Your task to perform on an android device: Install the eBay app Image 0: 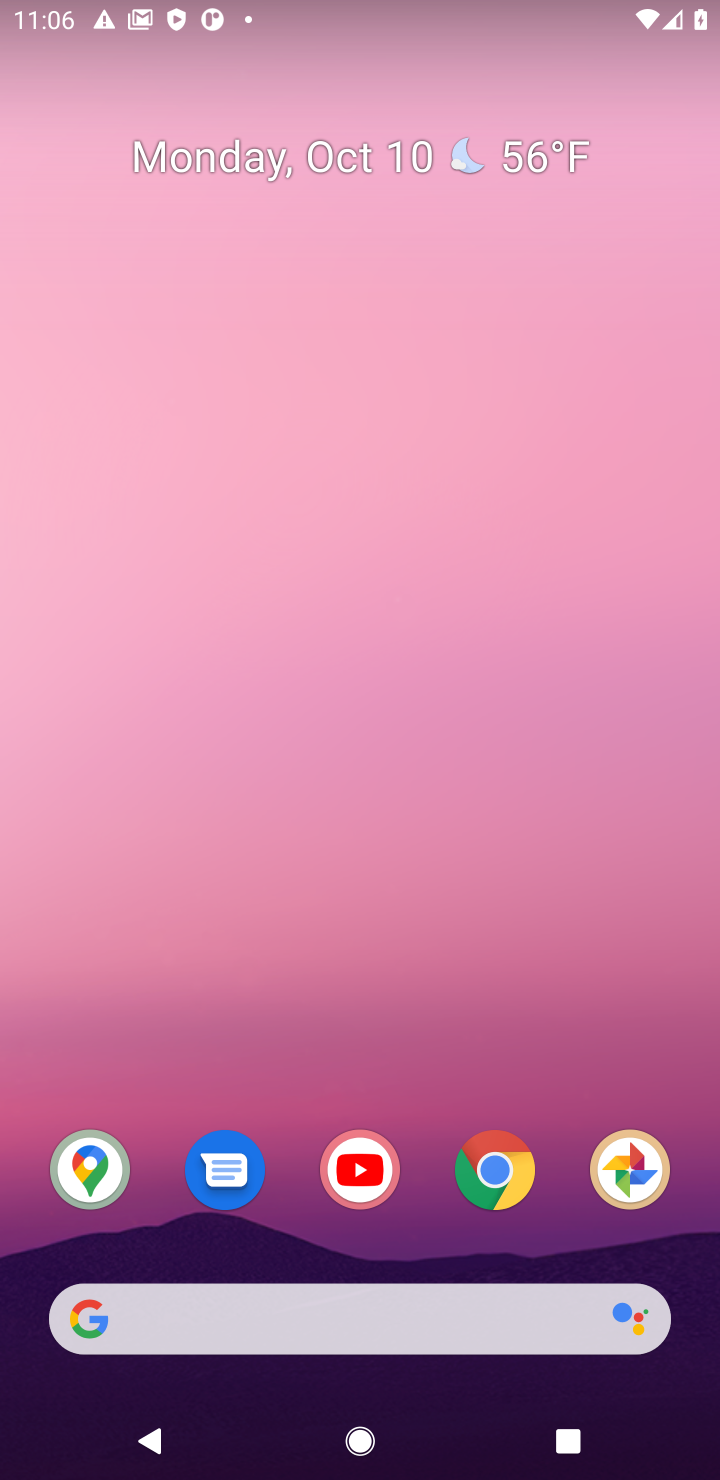
Step 0: click (672, 1458)
Your task to perform on an android device: Install the eBay app Image 1: 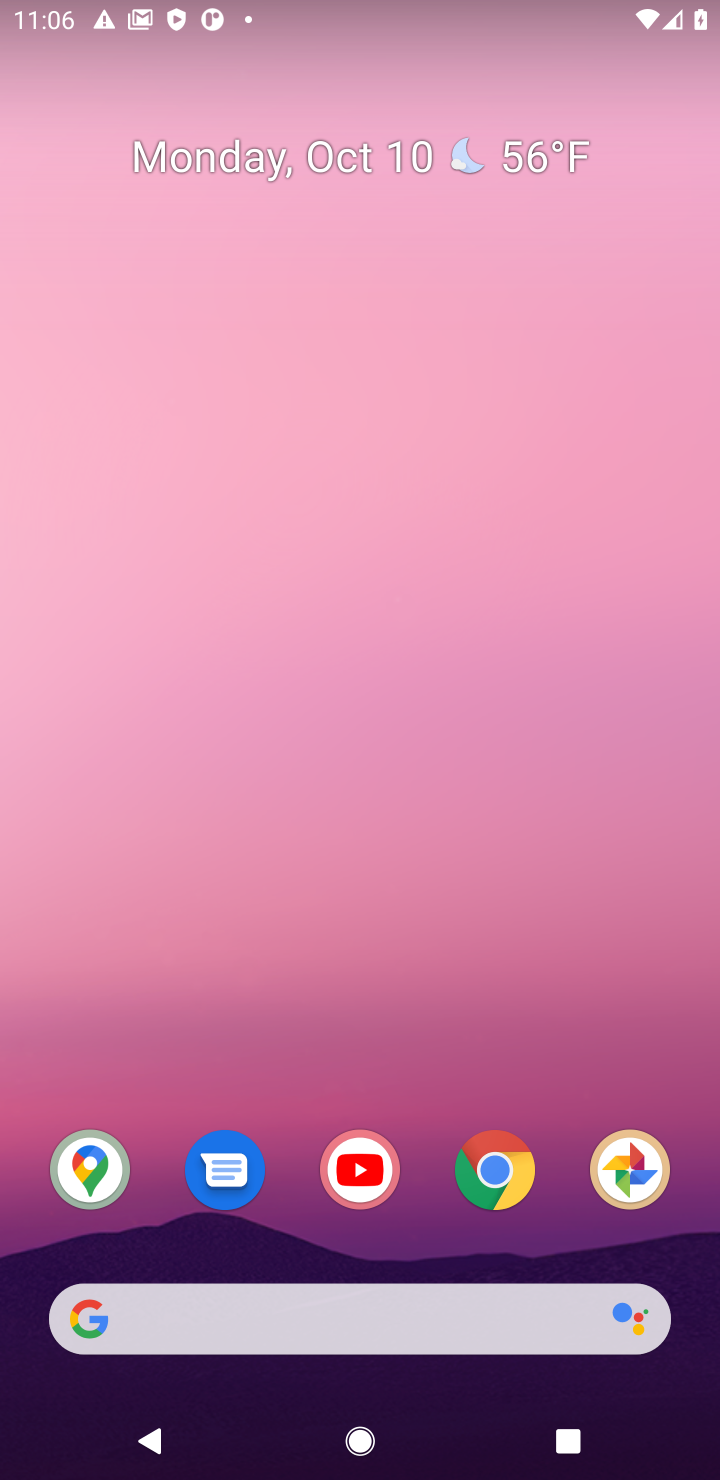
Step 1: drag from (445, 1255) to (394, 22)
Your task to perform on an android device: Install the eBay app Image 2: 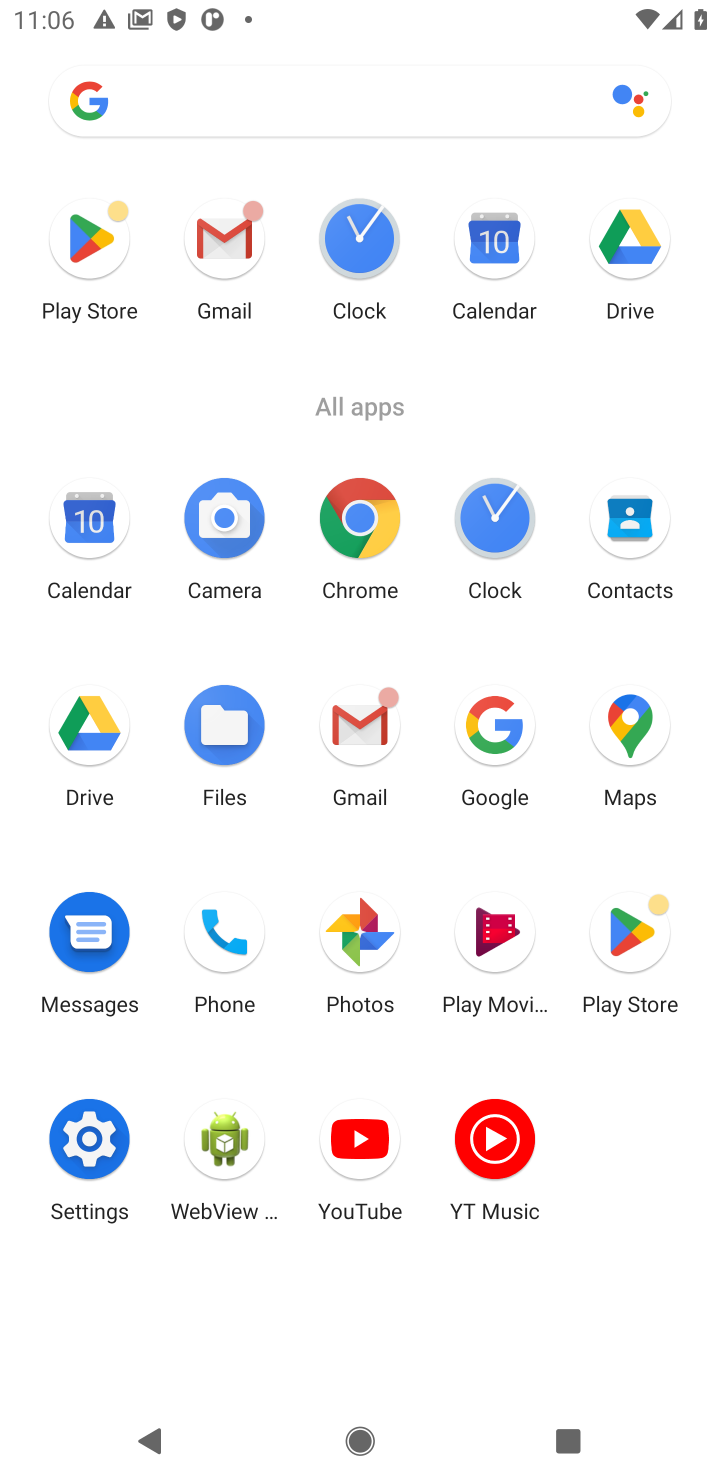
Step 2: click (627, 989)
Your task to perform on an android device: Install the eBay app Image 3: 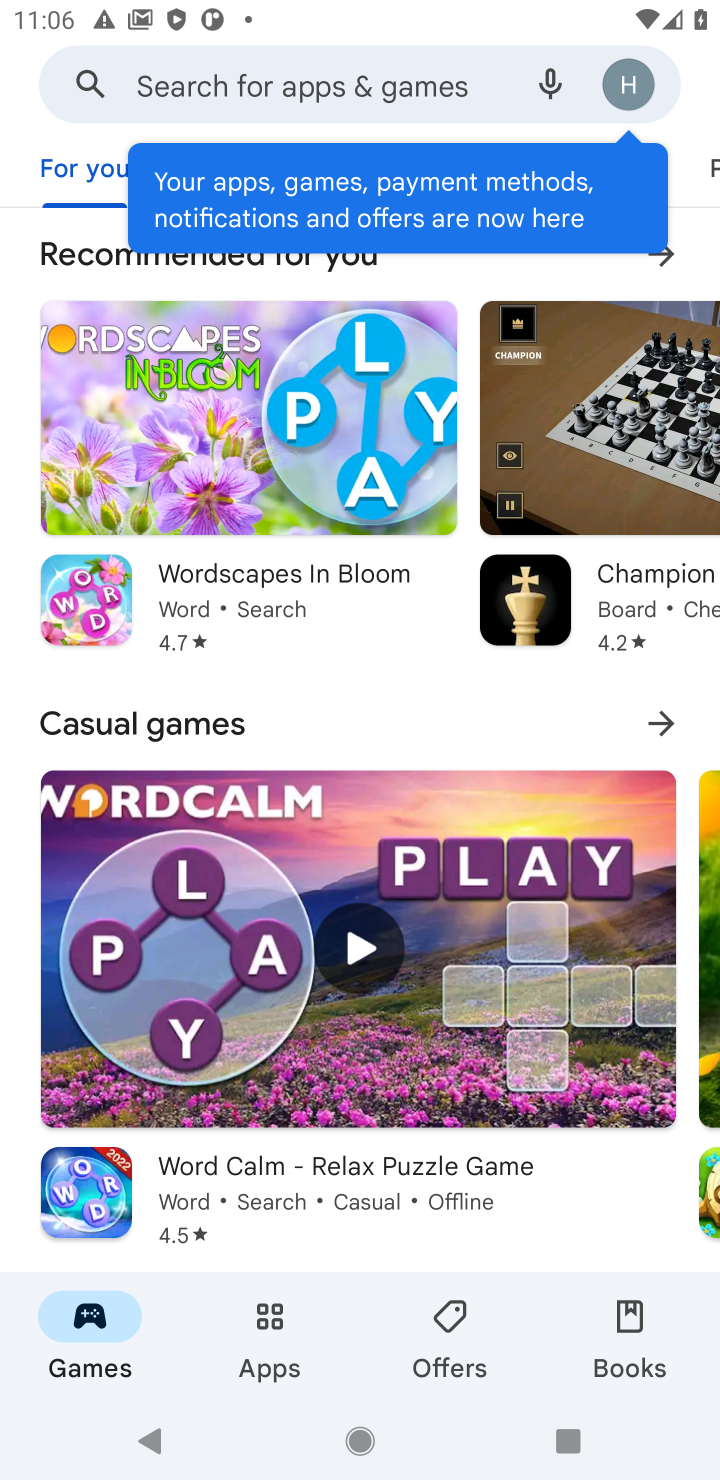
Step 3: click (360, 74)
Your task to perform on an android device: Install the eBay app Image 4: 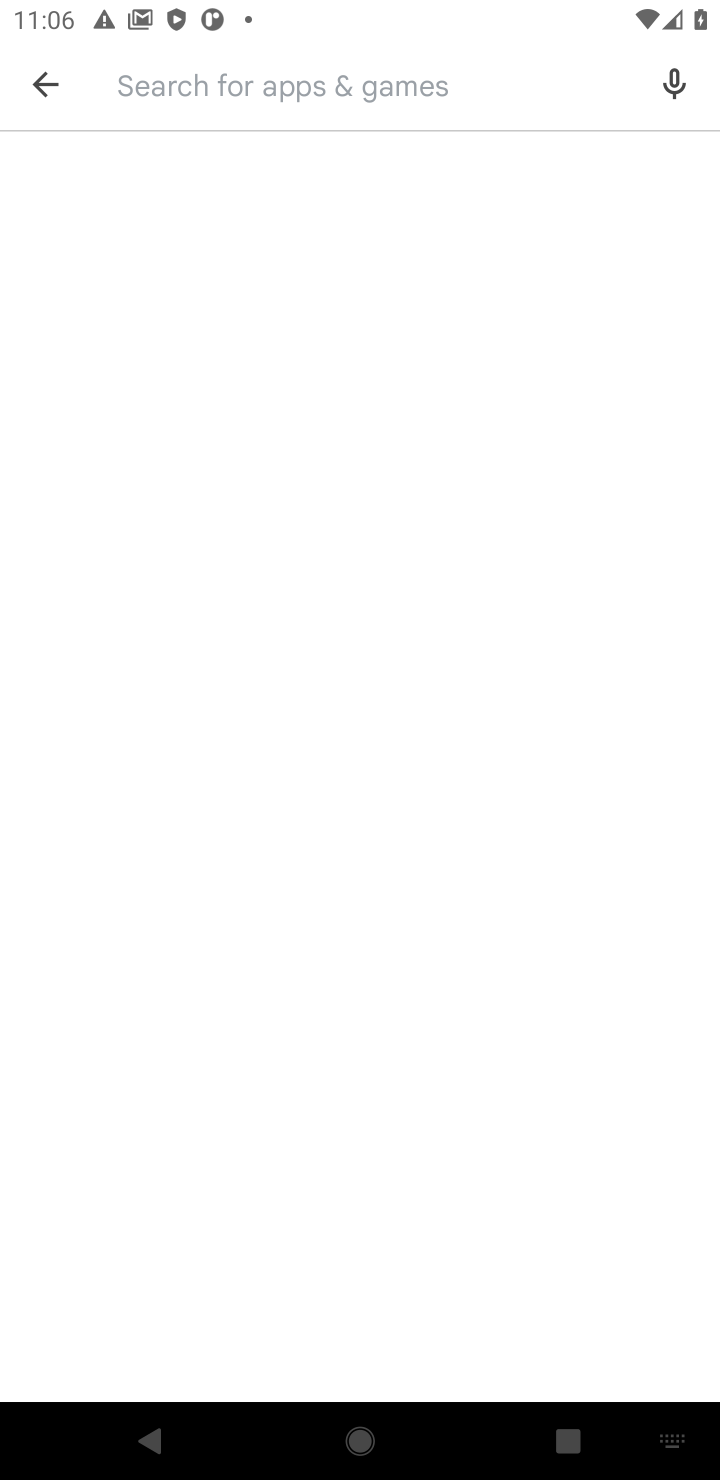
Step 4: click (221, 86)
Your task to perform on an android device: Install the eBay app Image 5: 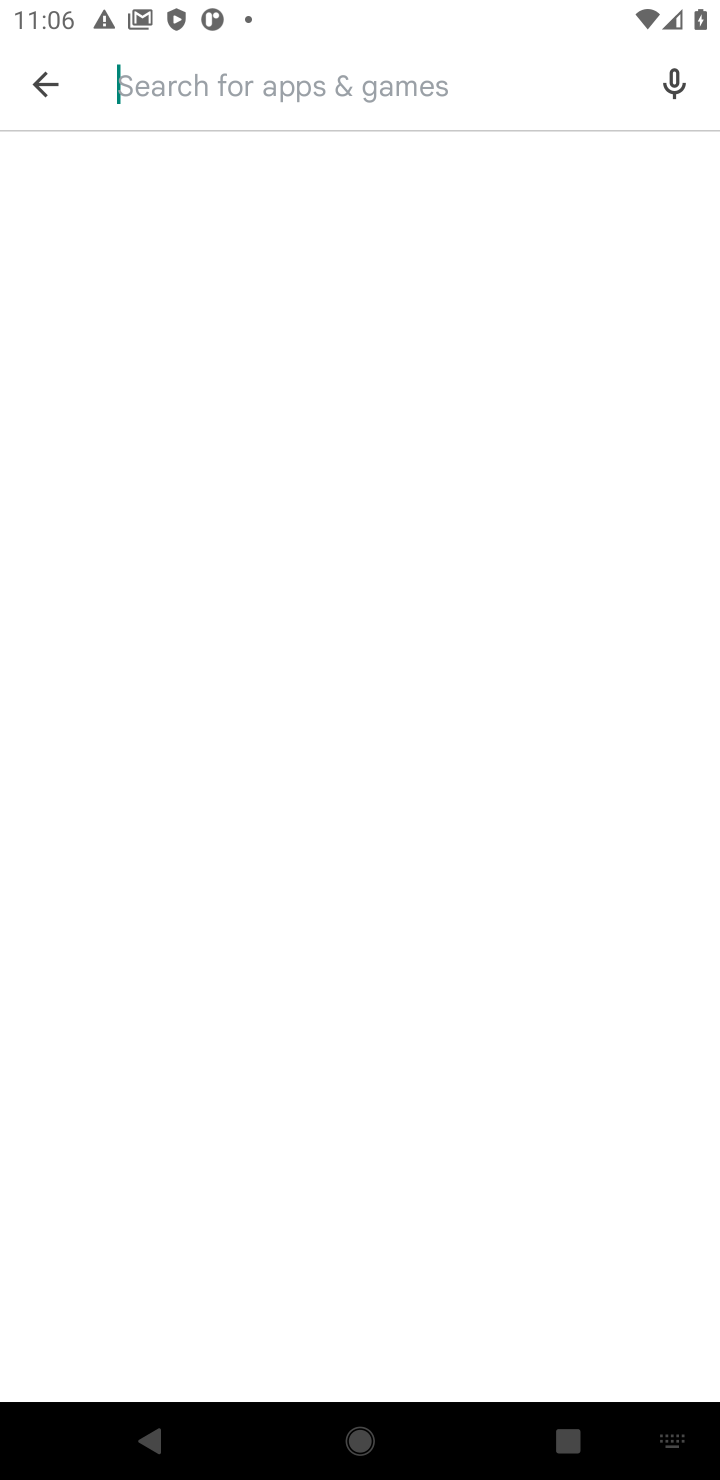
Step 5: type "eBay app"
Your task to perform on an android device: Install the eBay app Image 6: 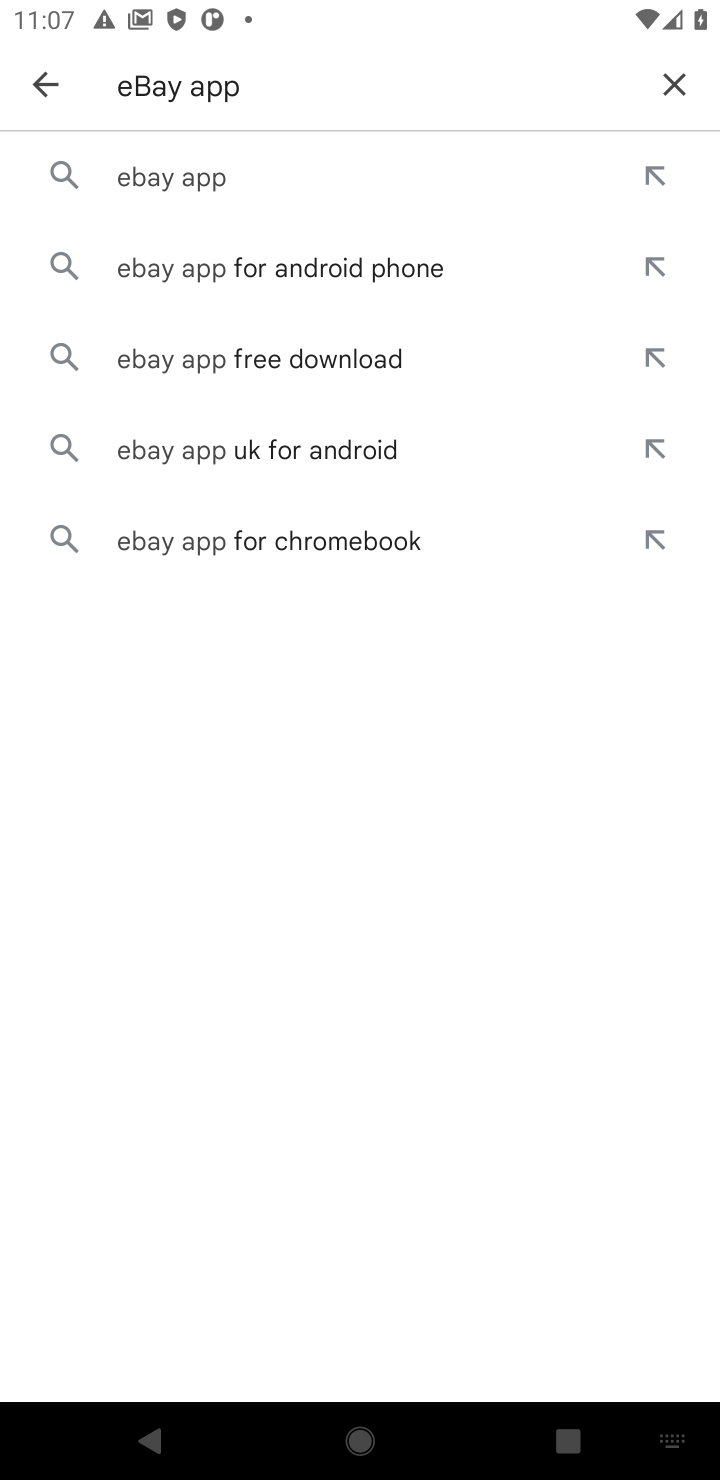
Step 6: click (437, 178)
Your task to perform on an android device: Install the eBay app Image 7: 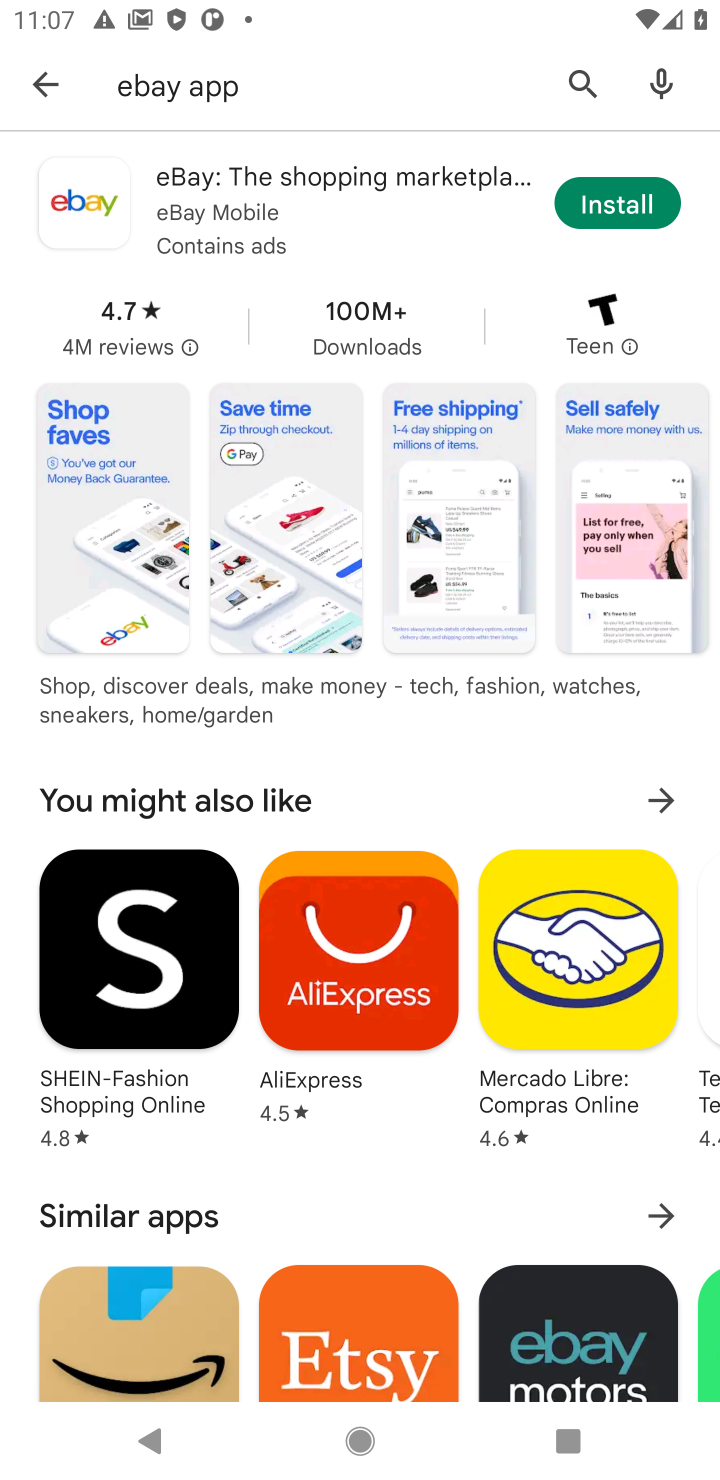
Step 7: click (589, 211)
Your task to perform on an android device: Install the eBay app Image 8: 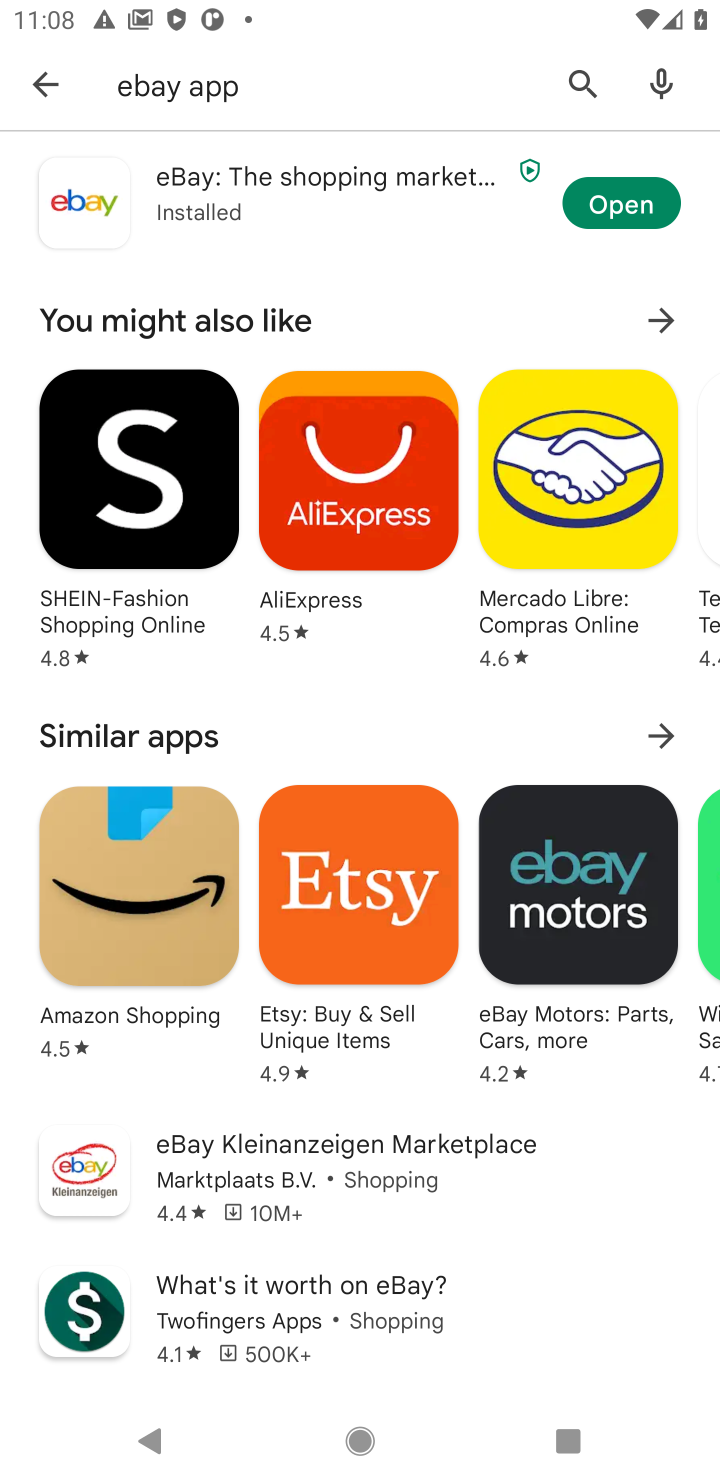
Step 8: task complete